Your task to perform on an android device: Go to privacy settings Image 0: 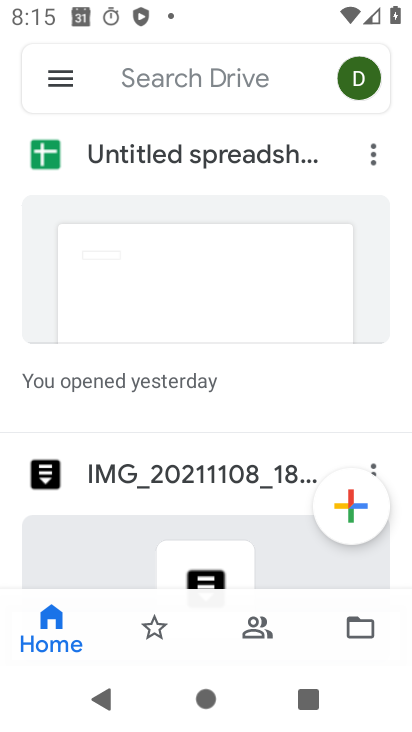
Step 0: press home button
Your task to perform on an android device: Go to privacy settings Image 1: 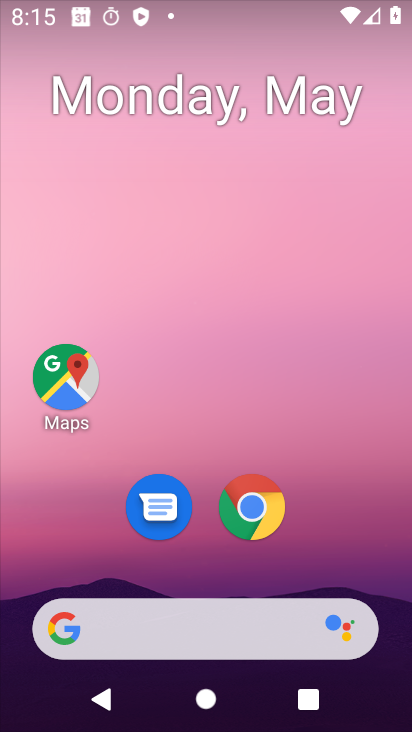
Step 1: drag from (217, 549) to (330, 140)
Your task to perform on an android device: Go to privacy settings Image 2: 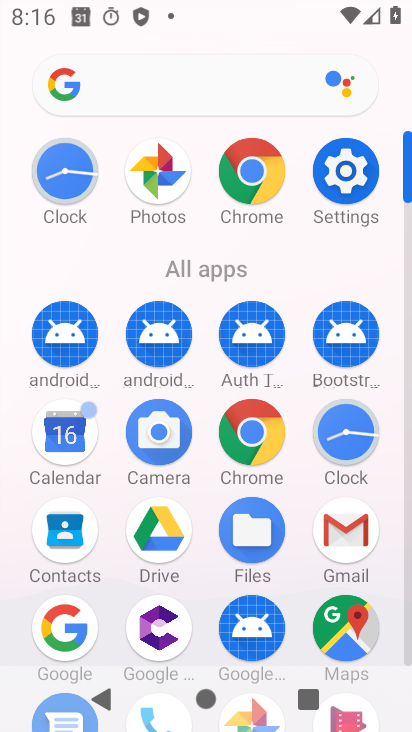
Step 2: click (355, 196)
Your task to perform on an android device: Go to privacy settings Image 3: 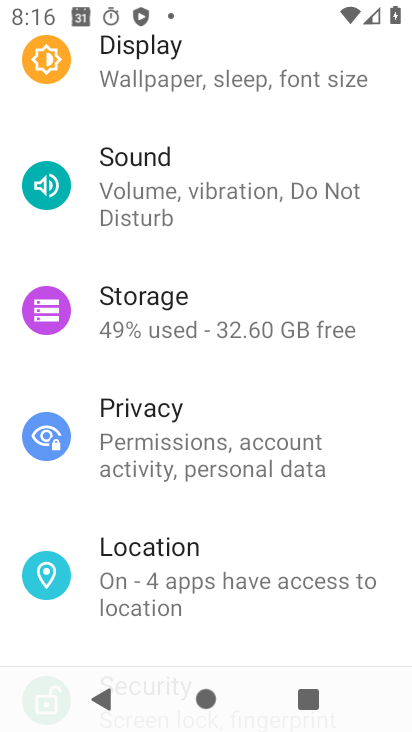
Step 3: click (242, 443)
Your task to perform on an android device: Go to privacy settings Image 4: 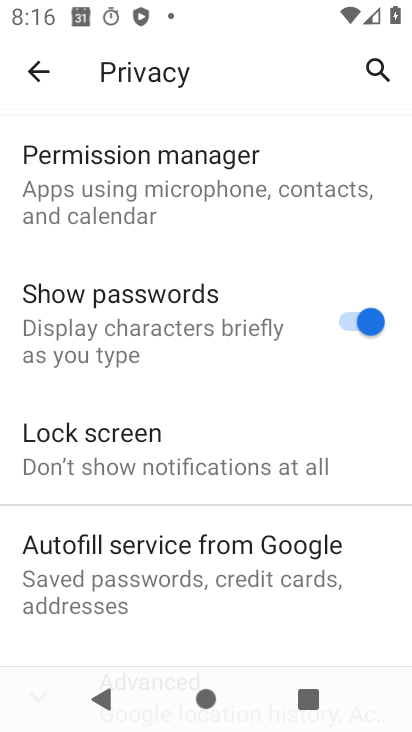
Step 4: click (206, 253)
Your task to perform on an android device: Go to privacy settings Image 5: 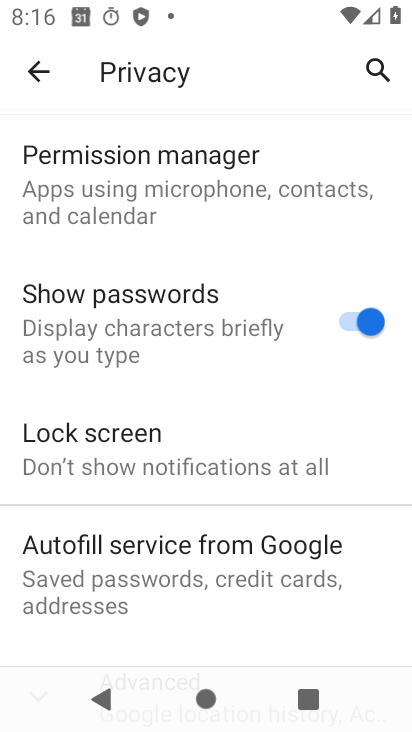
Step 5: task complete